Your task to perform on an android device: Open the Play Movies app and select the watchlist tab. Image 0: 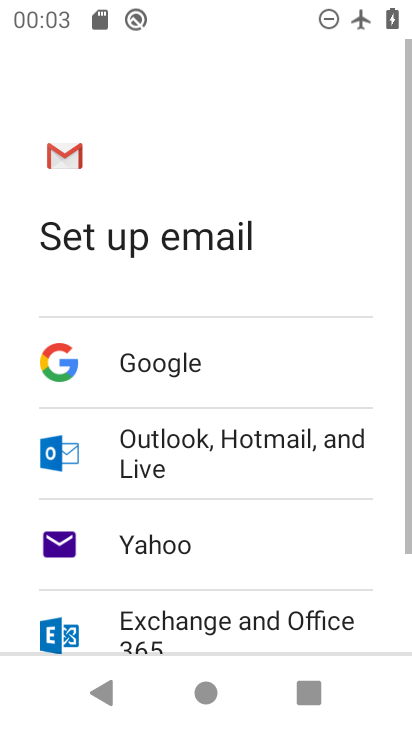
Step 0: press home button
Your task to perform on an android device: Open the Play Movies app and select the watchlist tab. Image 1: 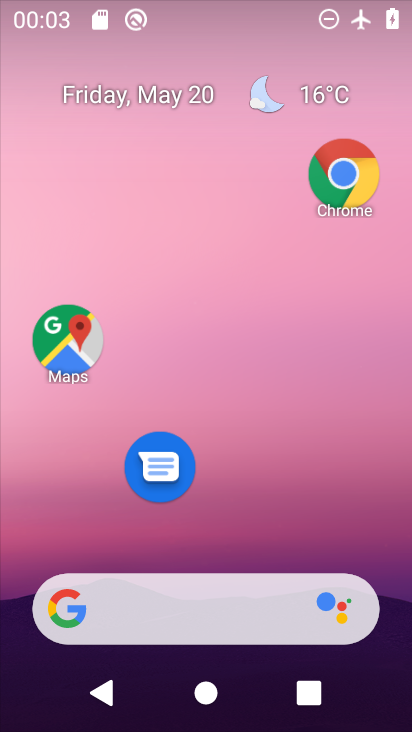
Step 1: drag from (306, 400) to (291, 275)
Your task to perform on an android device: Open the Play Movies app and select the watchlist tab. Image 2: 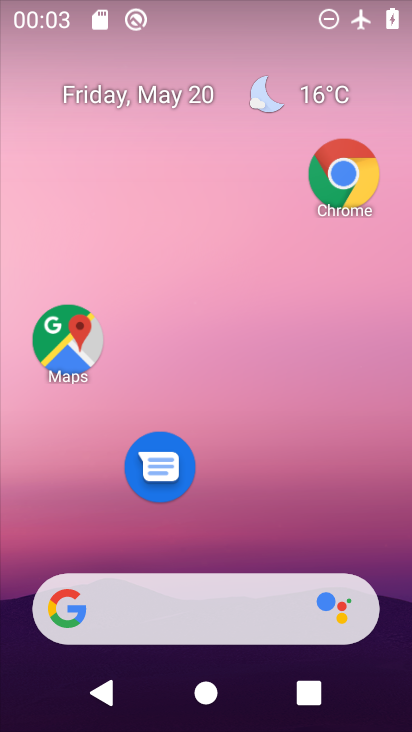
Step 2: drag from (270, 423) to (271, 244)
Your task to perform on an android device: Open the Play Movies app and select the watchlist tab. Image 3: 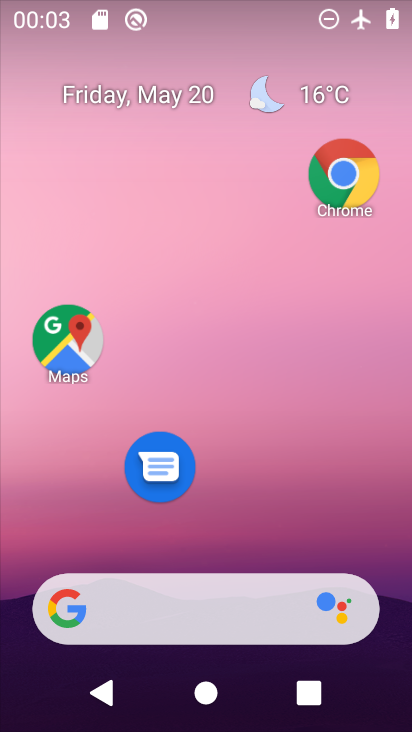
Step 3: drag from (240, 490) to (247, 156)
Your task to perform on an android device: Open the Play Movies app and select the watchlist tab. Image 4: 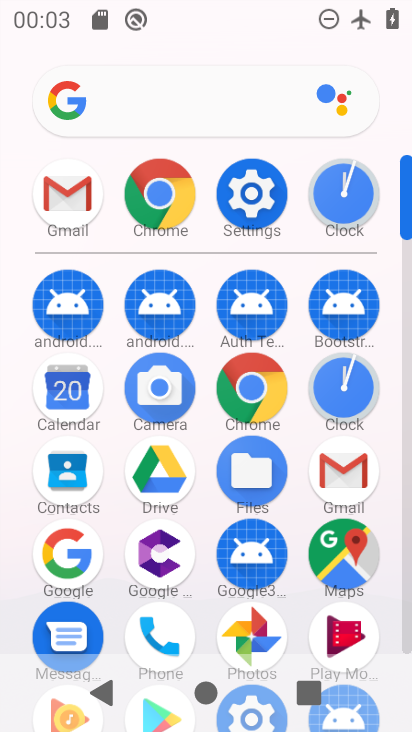
Step 4: click (317, 610)
Your task to perform on an android device: Open the Play Movies app and select the watchlist tab. Image 5: 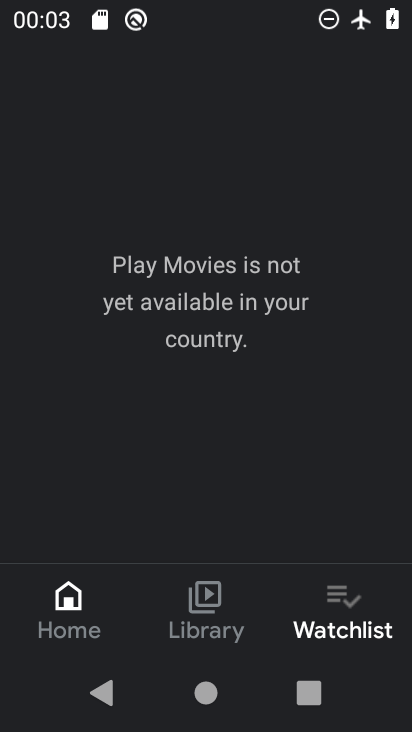
Step 5: click (313, 592)
Your task to perform on an android device: Open the Play Movies app and select the watchlist tab. Image 6: 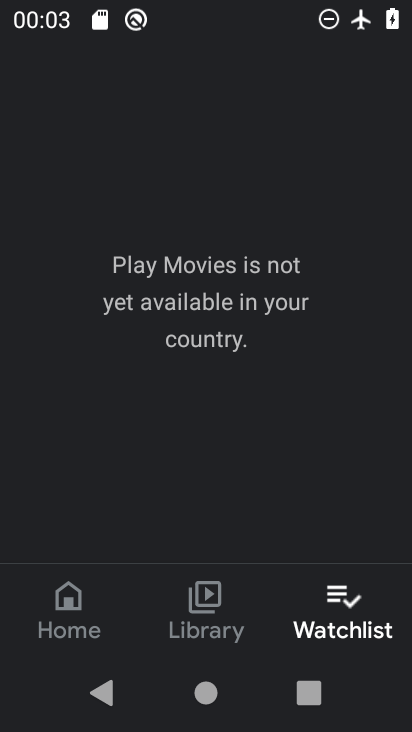
Step 6: task complete